Your task to perform on an android device: Search for good BBQ restaurants Image 0: 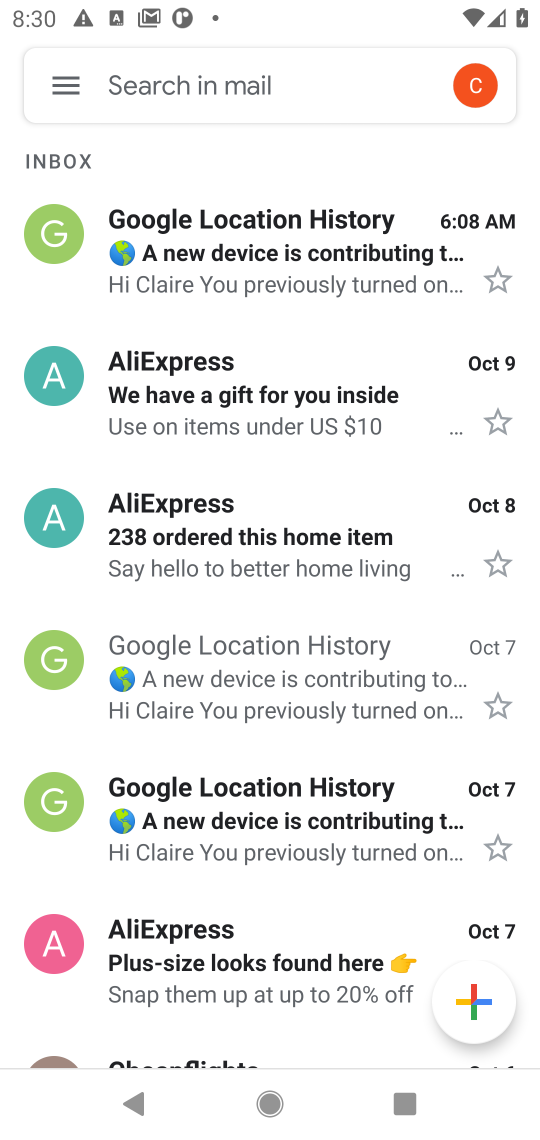
Step 0: press back button
Your task to perform on an android device: Search for good BBQ restaurants Image 1: 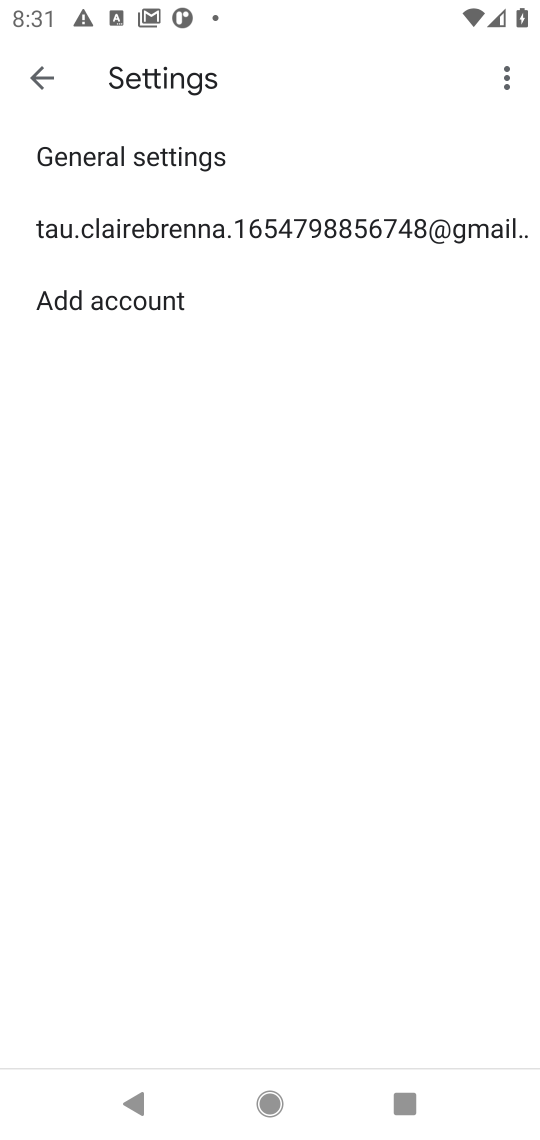
Step 1: press back button
Your task to perform on an android device: Search for good BBQ restaurants Image 2: 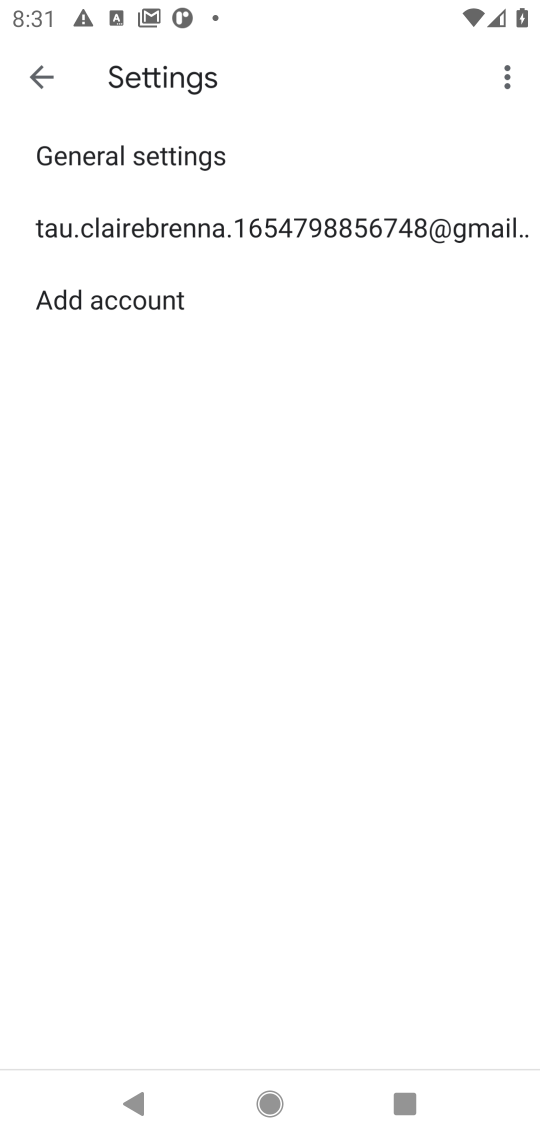
Step 2: press back button
Your task to perform on an android device: Search for good BBQ restaurants Image 3: 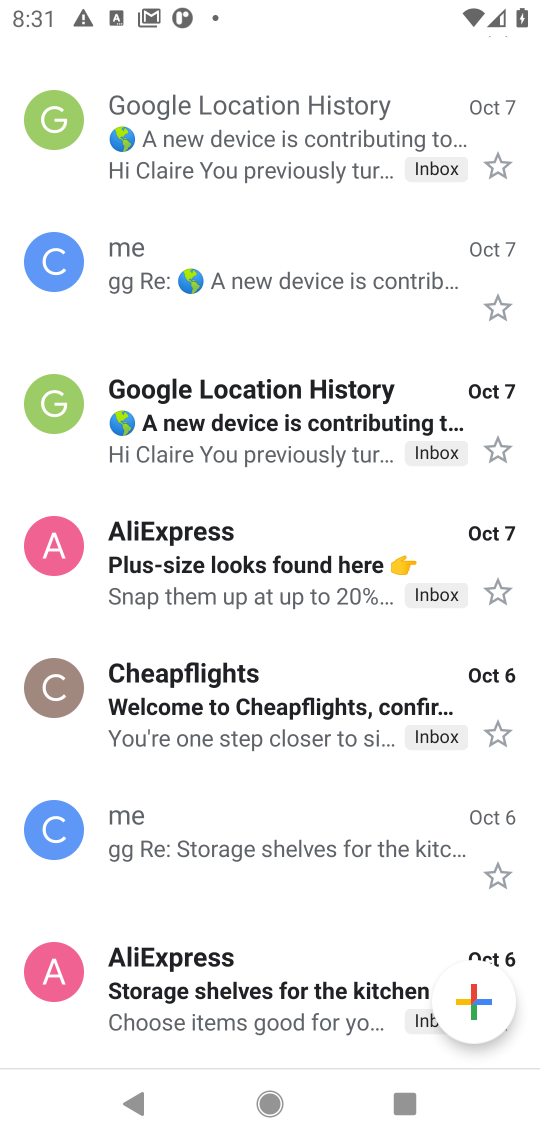
Step 3: press back button
Your task to perform on an android device: Search for good BBQ restaurants Image 4: 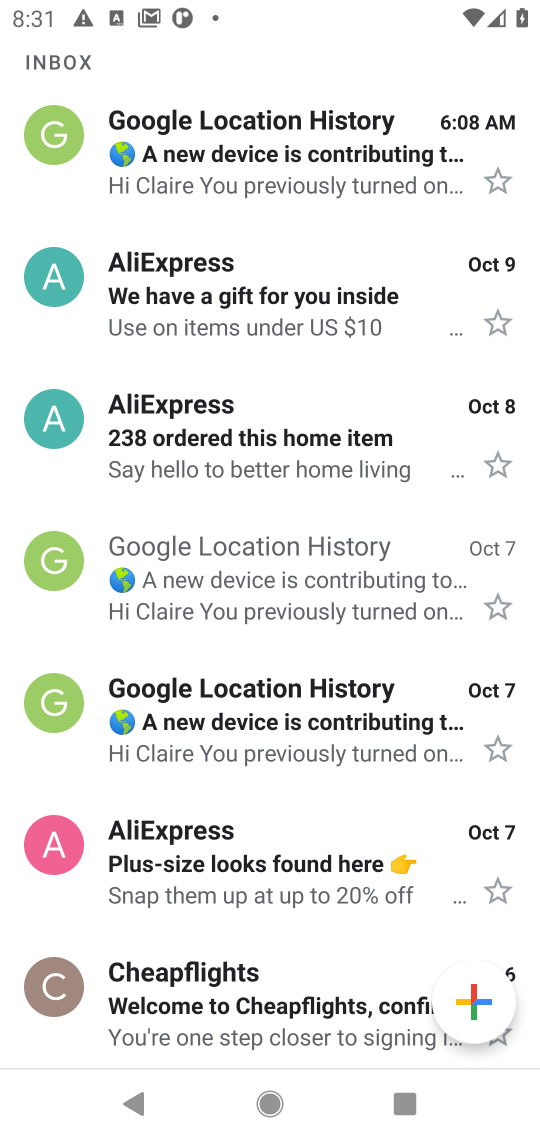
Step 4: press back button
Your task to perform on an android device: Search for good BBQ restaurants Image 5: 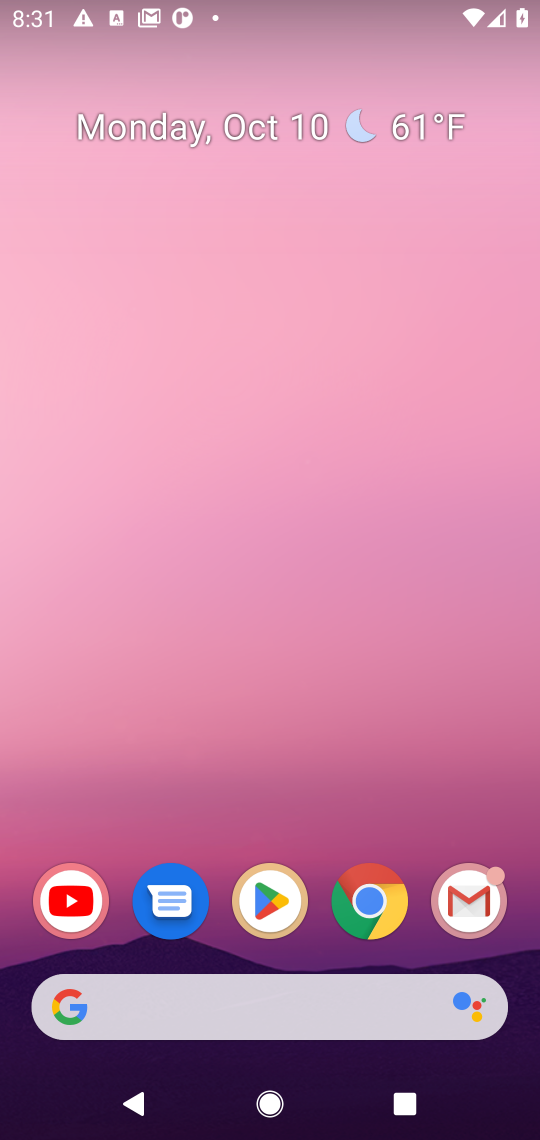
Step 5: click (236, 1016)
Your task to perform on an android device: Search for good BBQ restaurants Image 6: 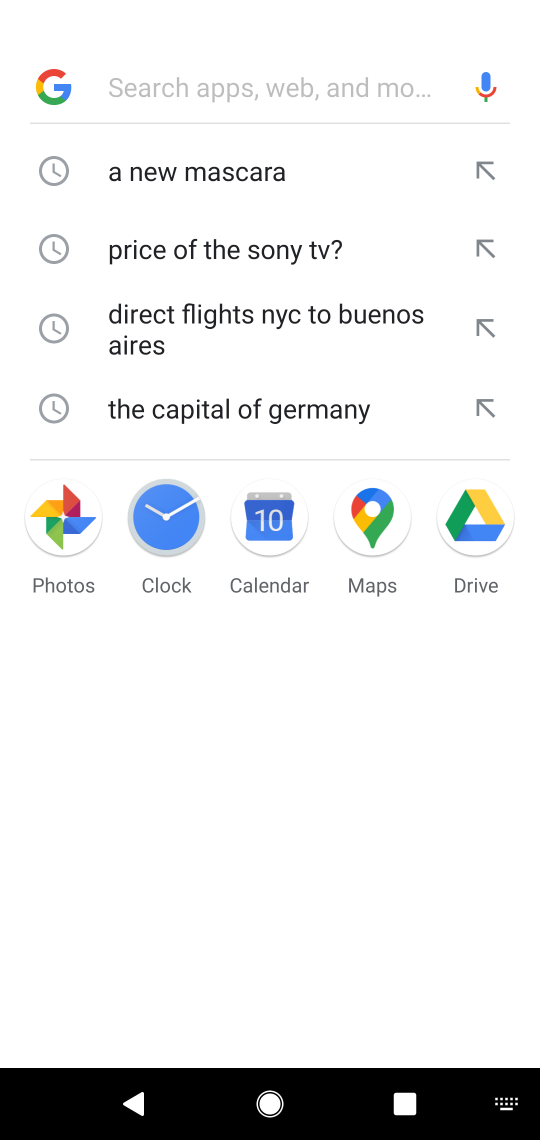
Step 6: type "good bbq restaurent"
Your task to perform on an android device: Search for good BBQ restaurants Image 7: 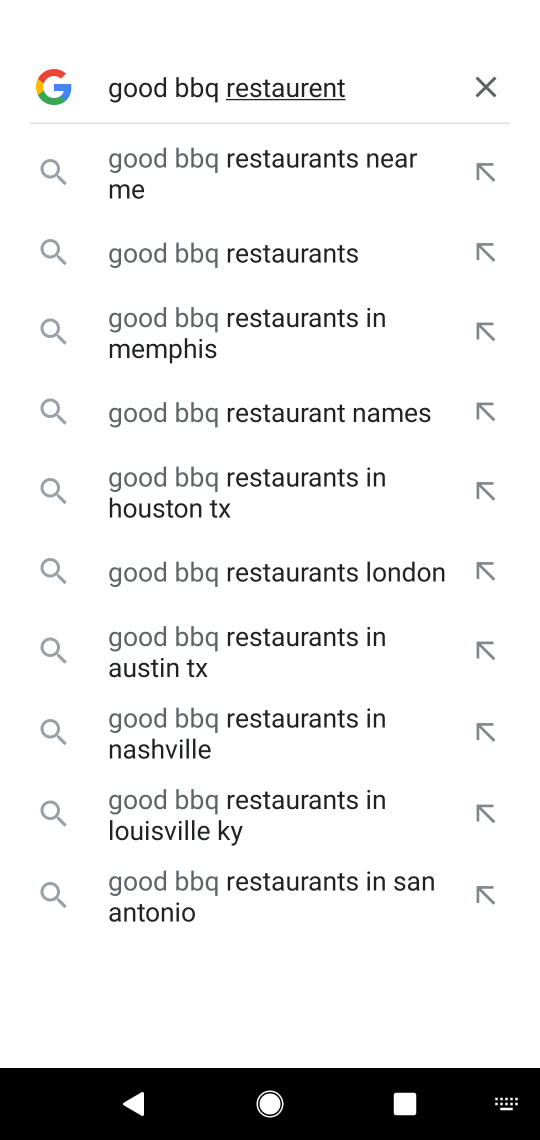
Step 7: type ""
Your task to perform on an android device: Search for good BBQ restaurants Image 8: 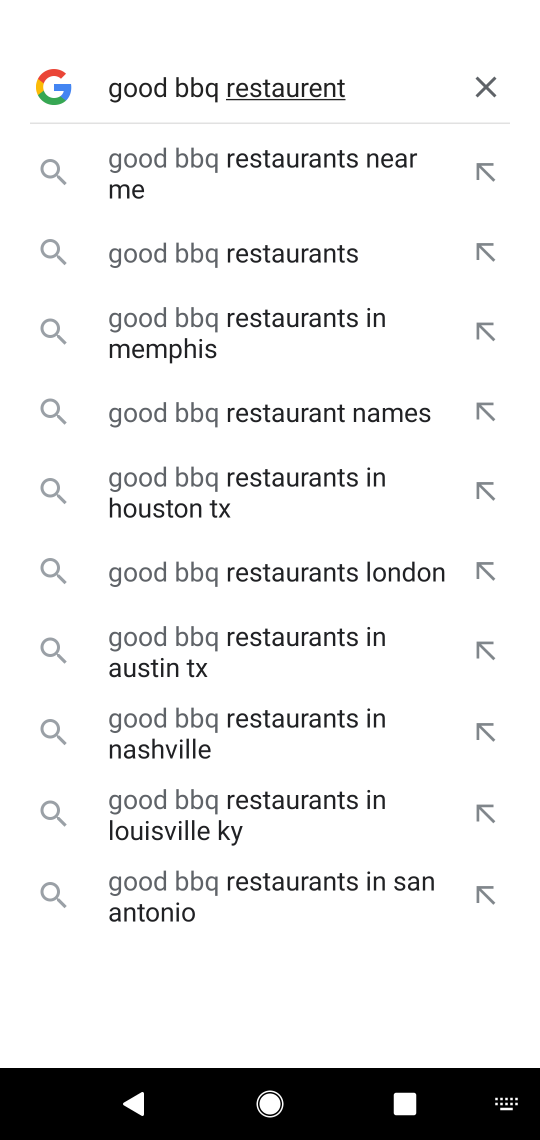
Step 8: press enter
Your task to perform on an android device: Search for good BBQ restaurants Image 9: 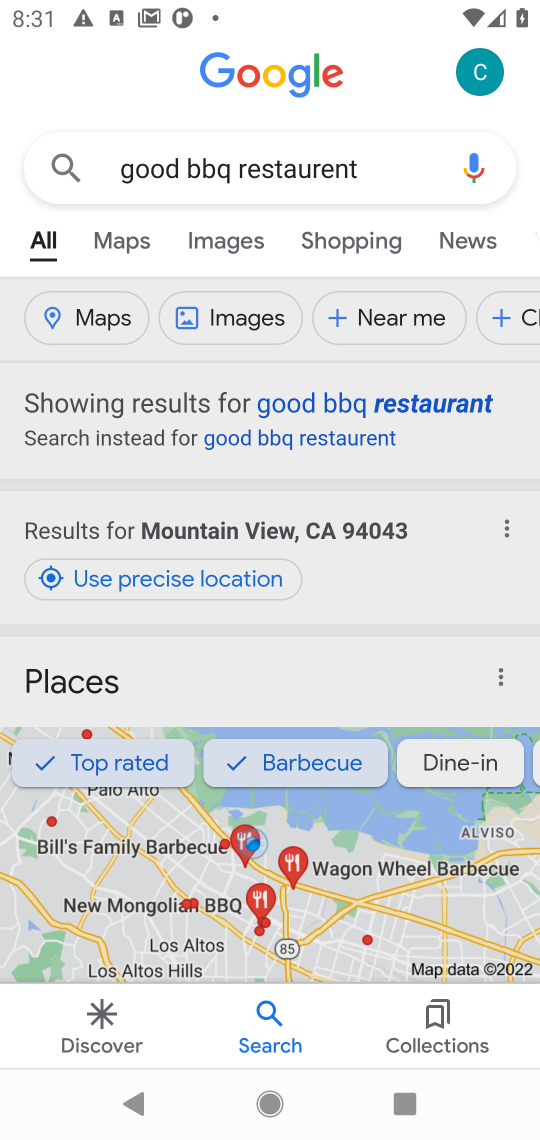
Step 9: drag from (384, 675) to (448, 338)
Your task to perform on an android device: Search for good BBQ restaurants Image 10: 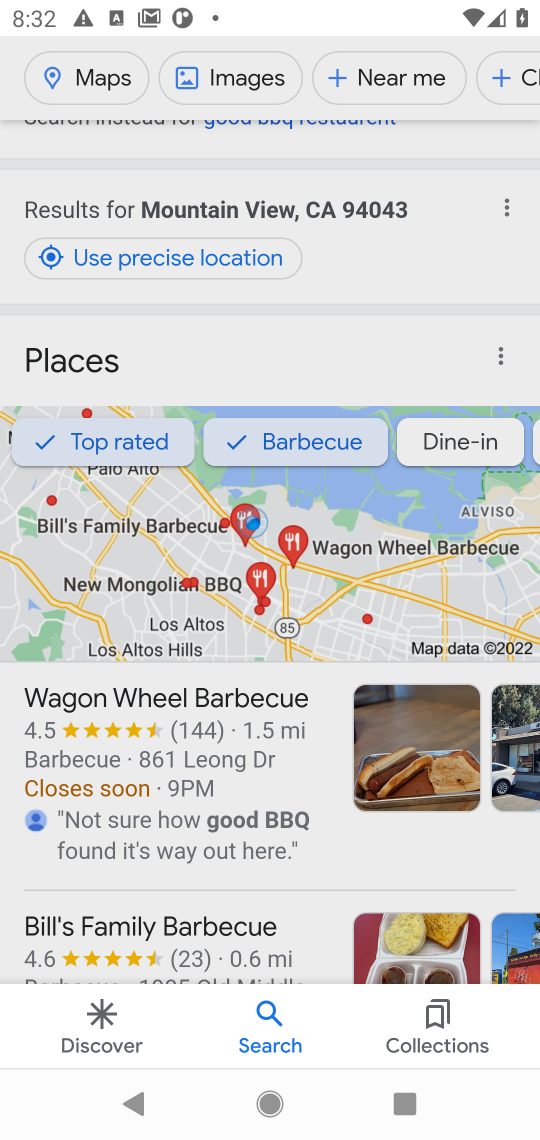
Step 10: drag from (314, 919) to (404, 502)
Your task to perform on an android device: Search for good BBQ restaurants Image 11: 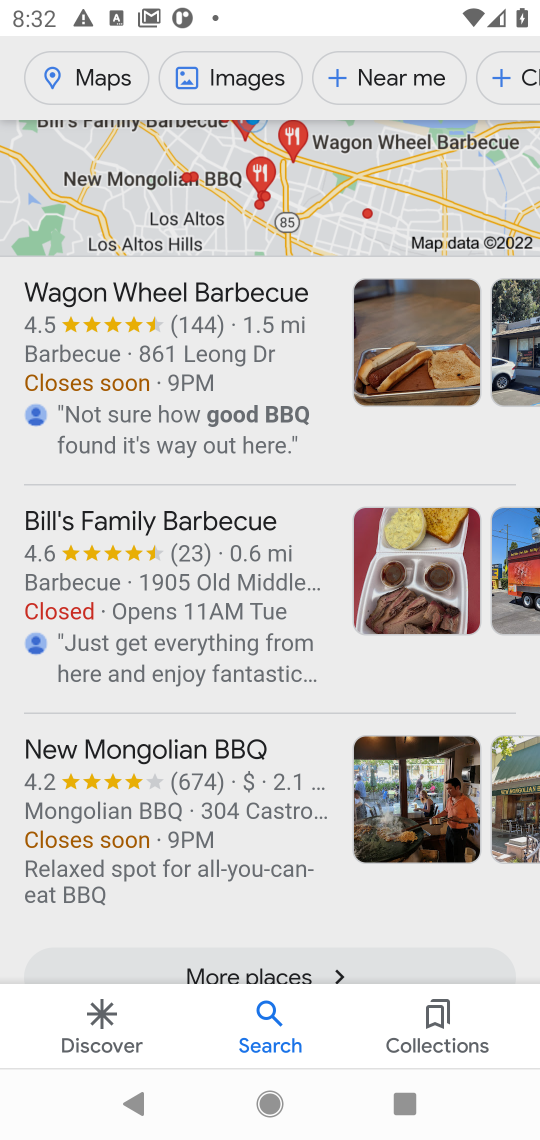
Step 11: drag from (330, 840) to (342, 783)
Your task to perform on an android device: Search for good BBQ restaurants Image 12: 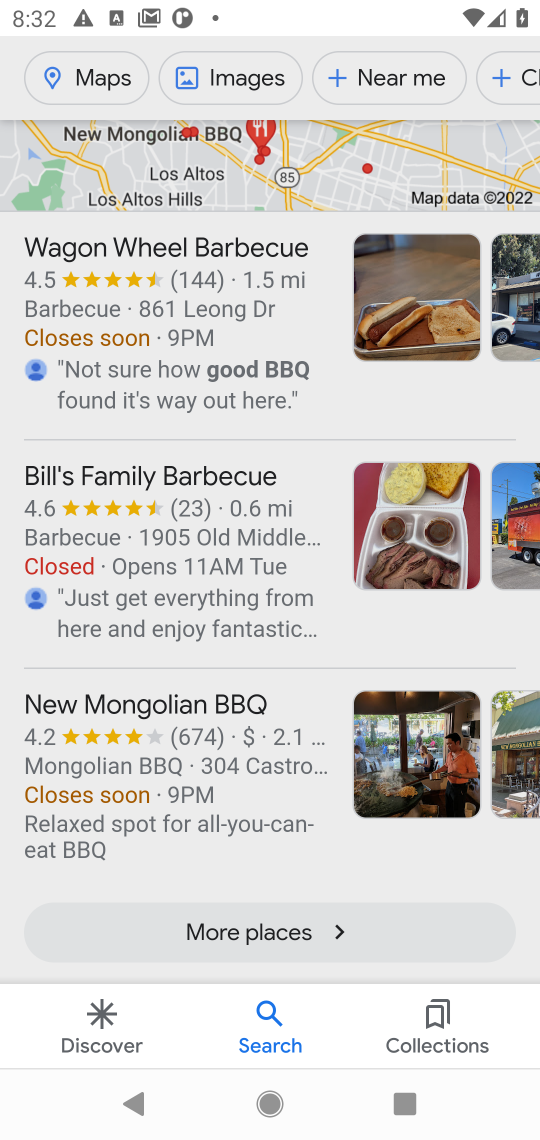
Step 12: click (249, 923)
Your task to perform on an android device: Search for good BBQ restaurants Image 13: 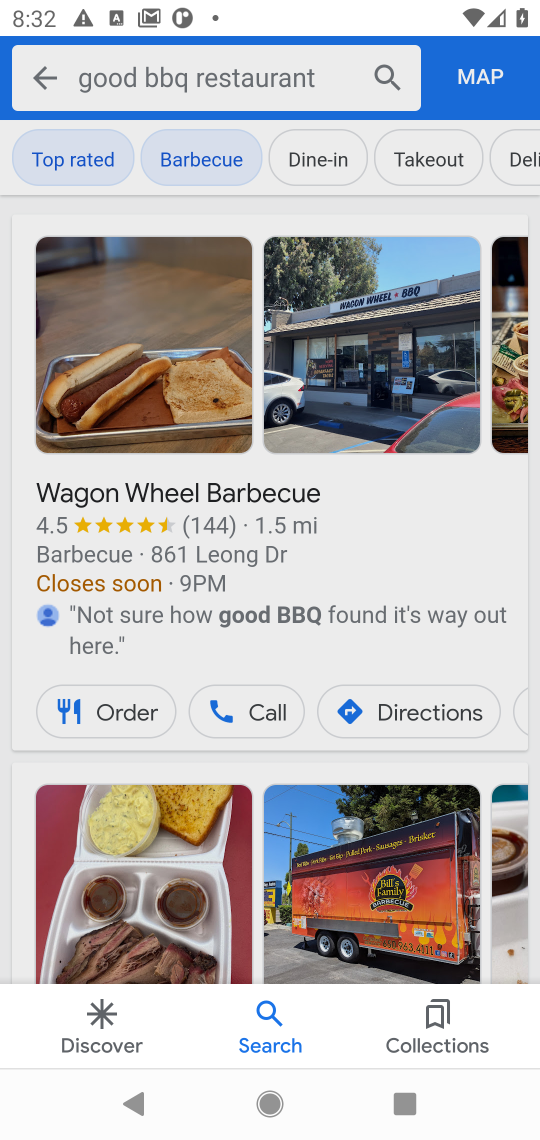
Step 13: click (251, 925)
Your task to perform on an android device: Search for good BBQ restaurants Image 14: 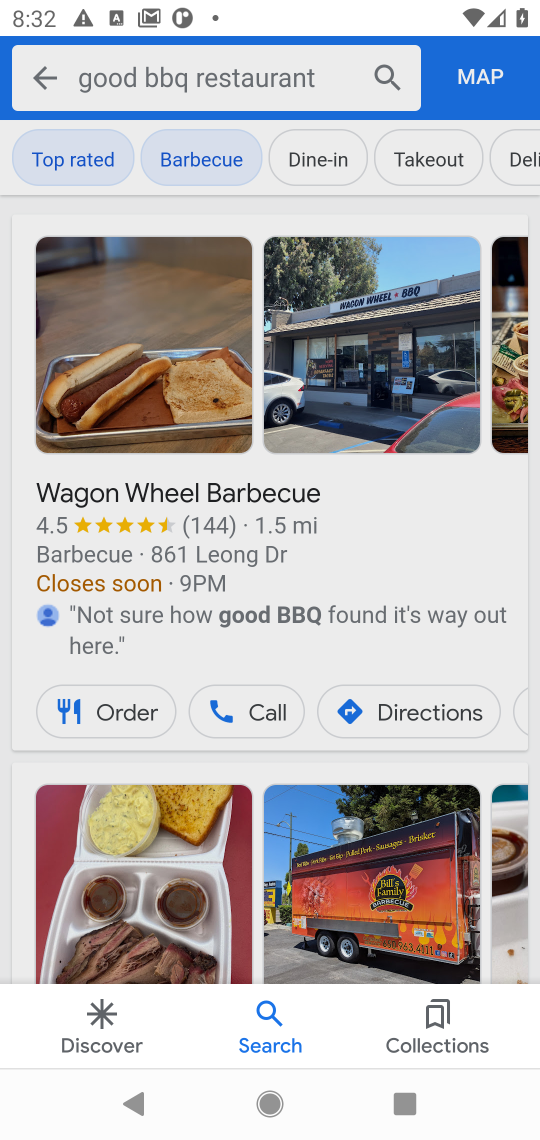
Step 14: click (251, 925)
Your task to perform on an android device: Search for good BBQ restaurants Image 15: 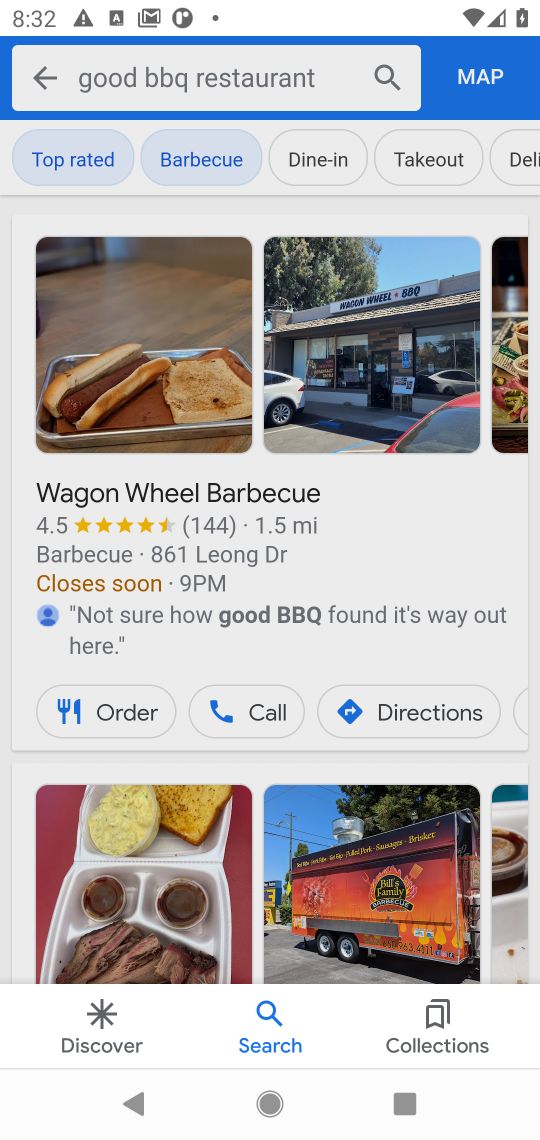
Step 15: drag from (253, 812) to (264, 741)
Your task to perform on an android device: Search for good BBQ restaurants Image 16: 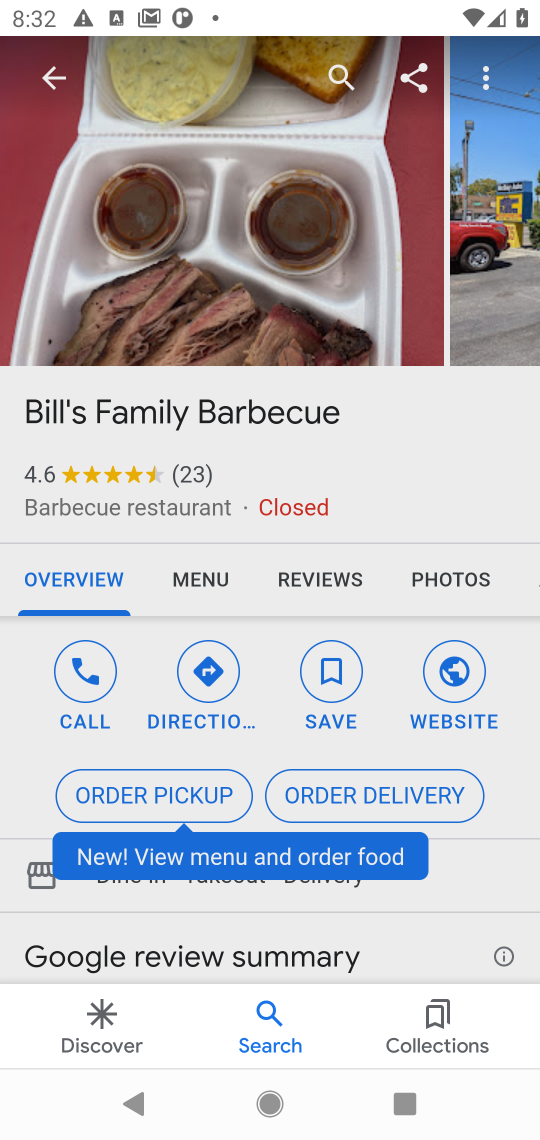
Step 16: click (516, 886)
Your task to perform on an android device: Search for good BBQ restaurants Image 17: 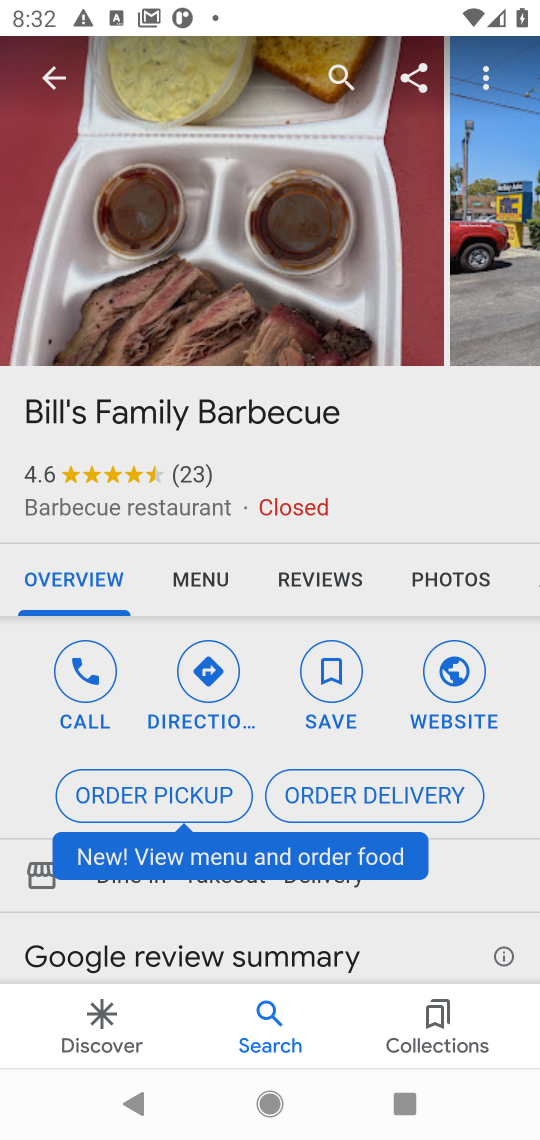
Step 17: task complete